Your task to perform on an android device: Open the phone app and click the voicemail tab. Image 0: 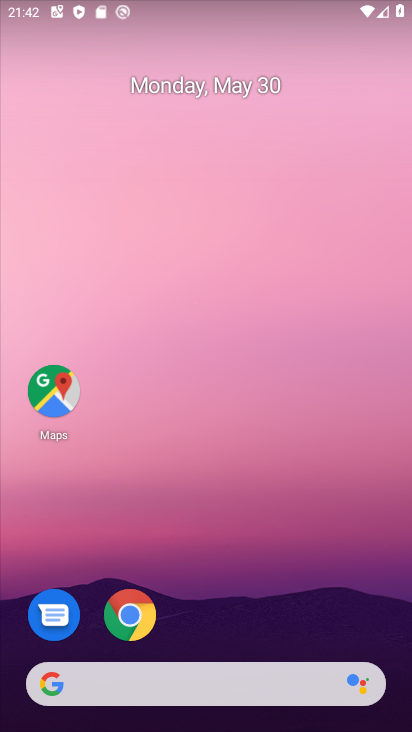
Step 0: drag from (257, 628) to (212, 35)
Your task to perform on an android device: Open the phone app and click the voicemail tab. Image 1: 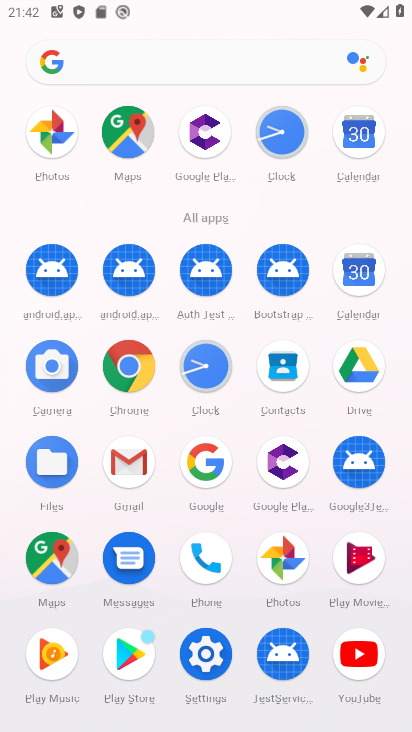
Step 1: click (202, 569)
Your task to perform on an android device: Open the phone app and click the voicemail tab. Image 2: 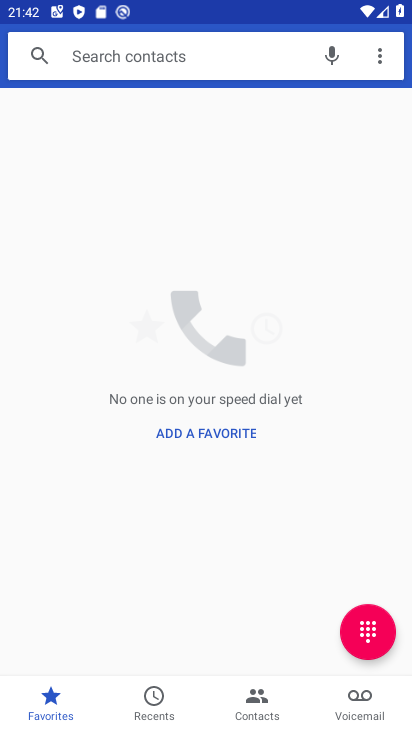
Step 2: click (355, 706)
Your task to perform on an android device: Open the phone app and click the voicemail tab. Image 3: 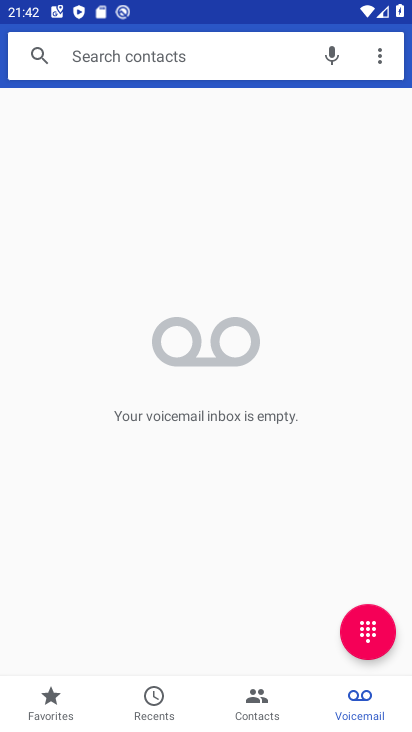
Step 3: task complete